Your task to perform on an android device: turn on airplane mode Image 0: 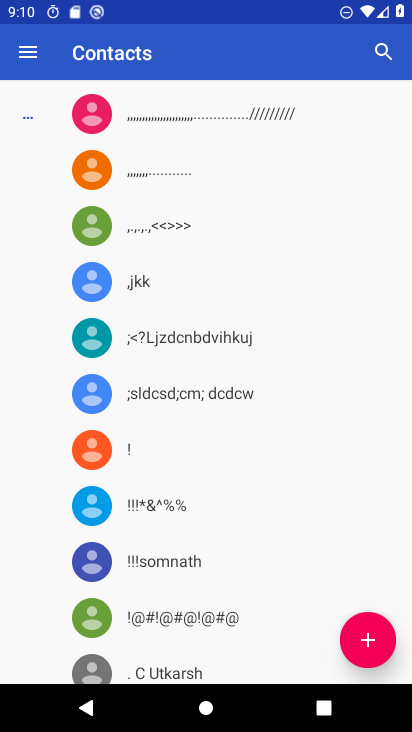
Step 0: press home button
Your task to perform on an android device: turn on airplane mode Image 1: 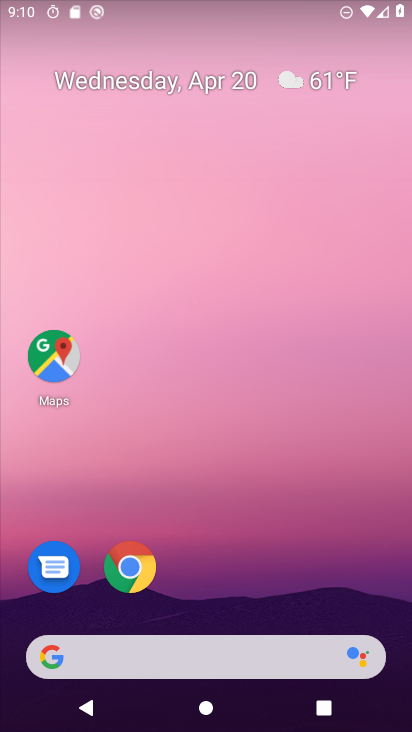
Step 1: drag from (366, 538) to (396, 1)
Your task to perform on an android device: turn on airplane mode Image 2: 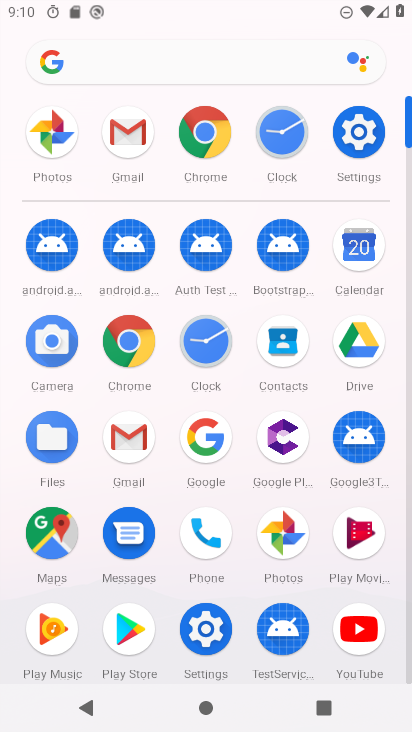
Step 2: click (353, 141)
Your task to perform on an android device: turn on airplane mode Image 3: 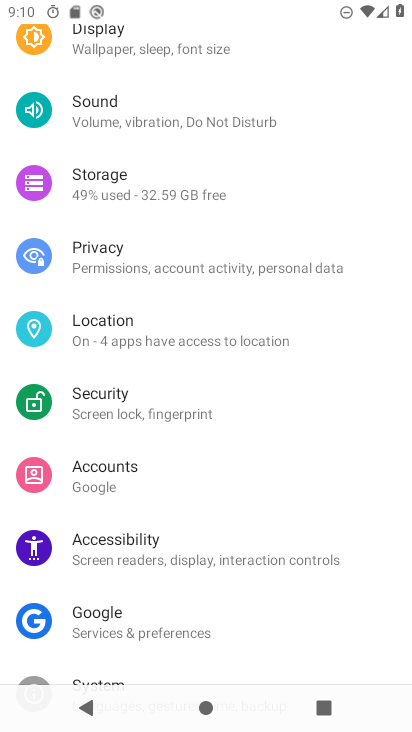
Step 3: drag from (340, 128) to (332, 541)
Your task to perform on an android device: turn on airplane mode Image 4: 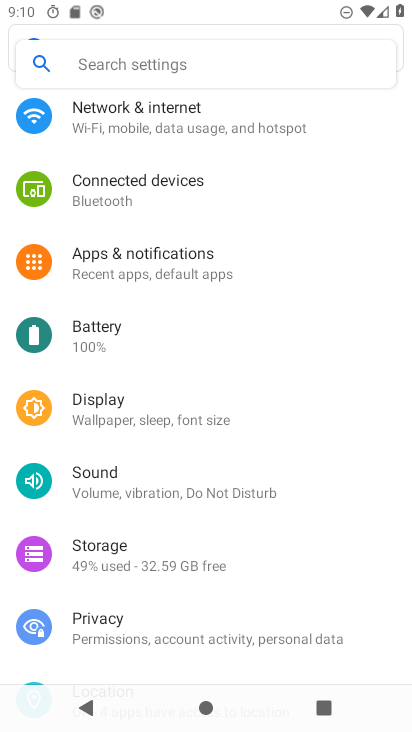
Step 4: drag from (342, 218) to (336, 576)
Your task to perform on an android device: turn on airplane mode Image 5: 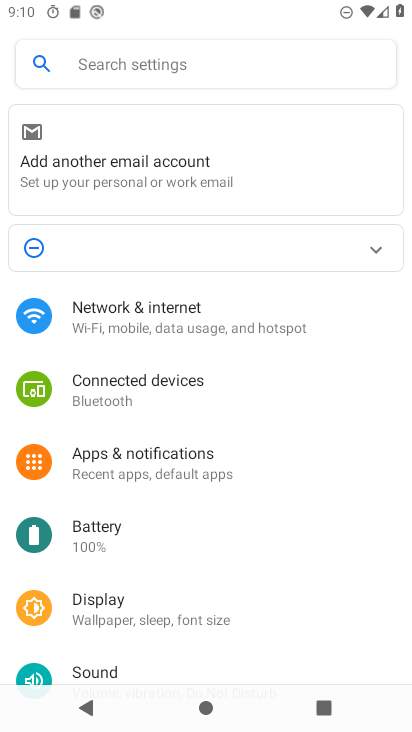
Step 5: click (148, 338)
Your task to perform on an android device: turn on airplane mode Image 6: 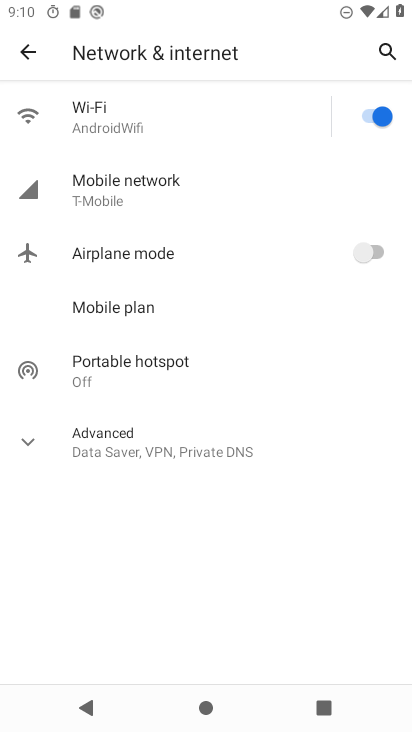
Step 6: click (364, 255)
Your task to perform on an android device: turn on airplane mode Image 7: 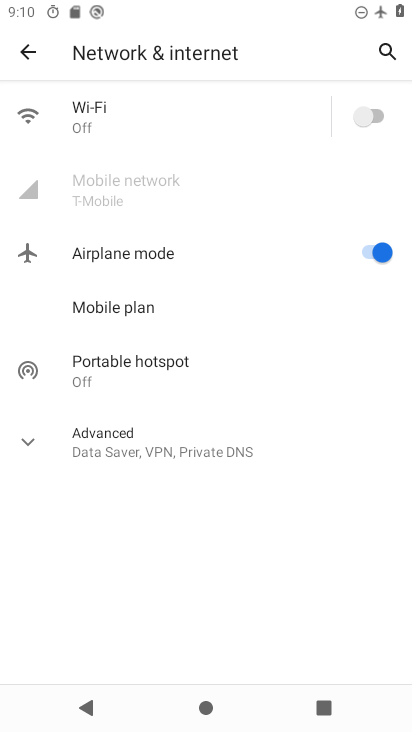
Step 7: task complete